Your task to perform on an android device: Go to eBay Image 0: 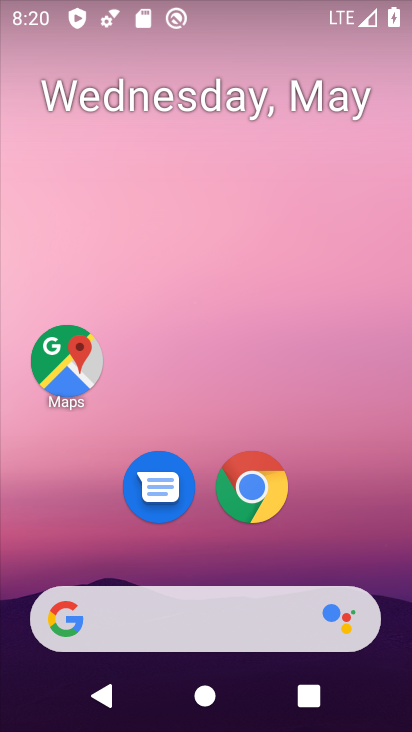
Step 0: click (259, 487)
Your task to perform on an android device: Go to eBay Image 1: 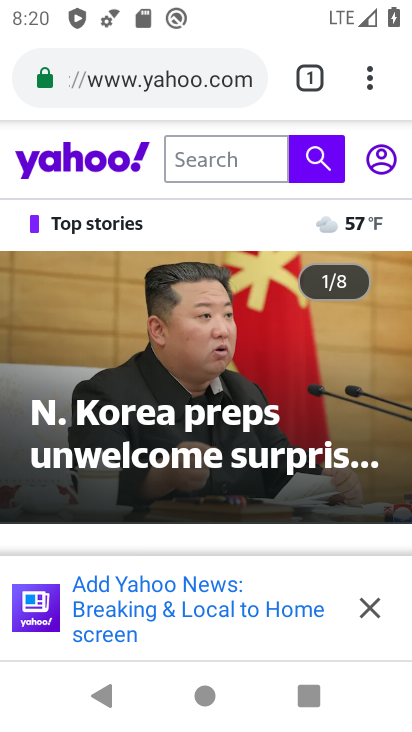
Step 1: click (312, 87)
Your task to perform on an android device: Go to eBay Image 2: 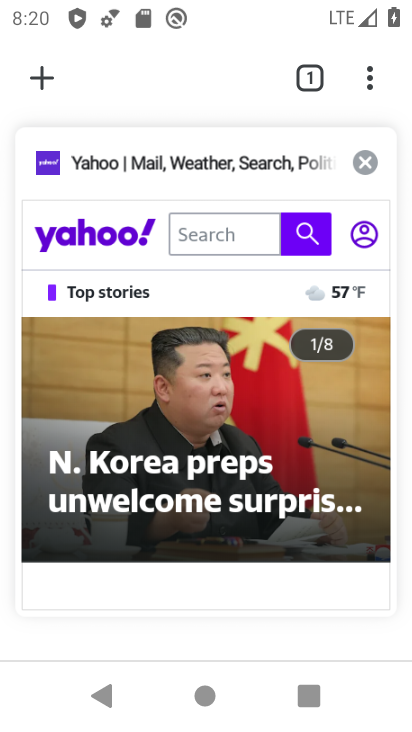
Step 2: click (50, 75)
Your task to perform on an android device: Go to eBay Image 3: 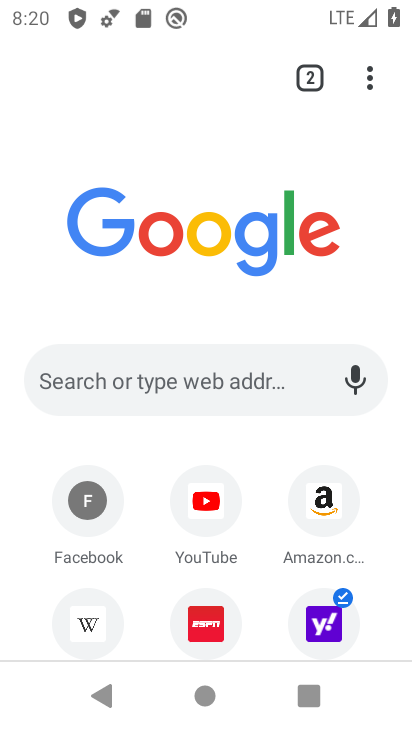
Step 3: drag from (176, 570) to (202, 444)
Your task to perform on an android device: Go to eBay Image 4: 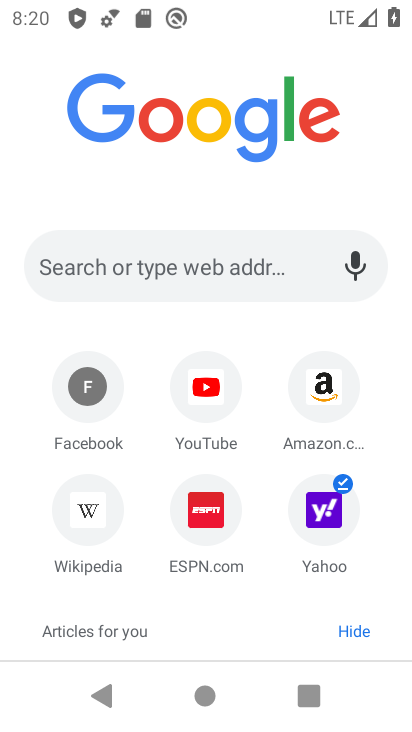
Step 4: click (204, 256)
Your task to perform on an android device: Go to eBay Image 5: 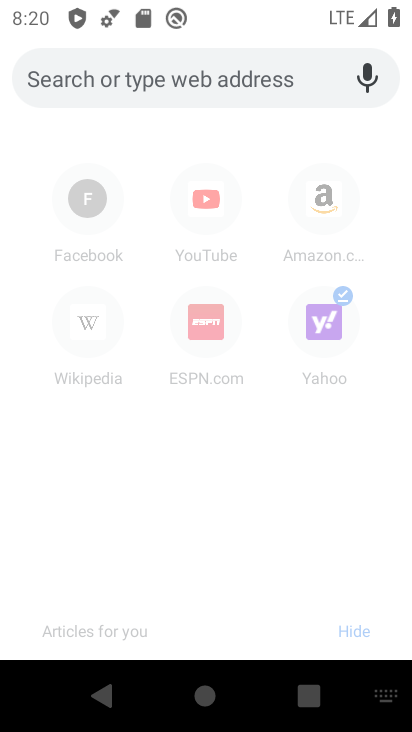
Step 5: type "eBay"
Your task to perform on an android device: Go to eBay Image 6: 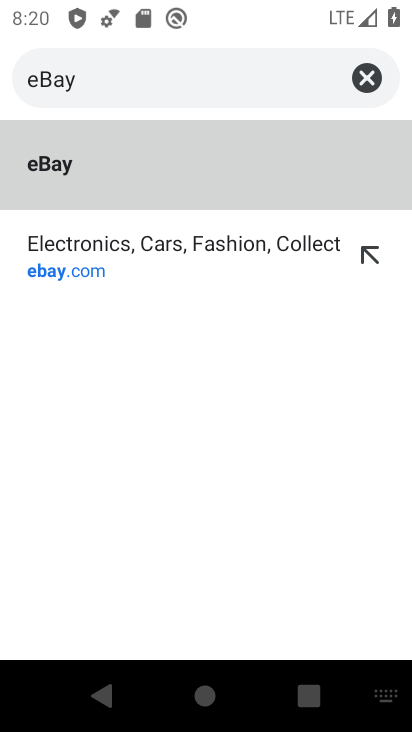
Step 6: click (169, 167)
Your task to perform on an android device: Go to eBay Image 7: 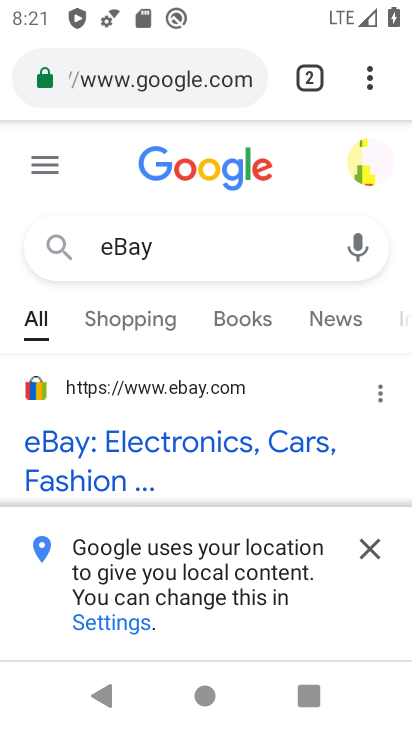
Step 7: click (172, 431)
Your task to perform on an android device: Go to eBay Image 8: 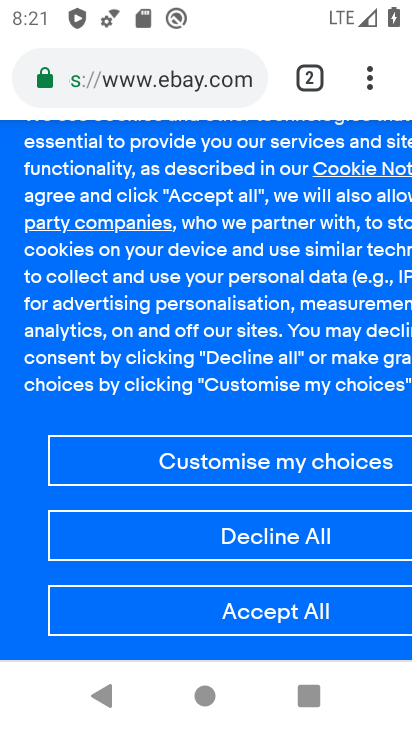
Step 8: task complete